Your task to perform on an android device: Open display settings Image 0: 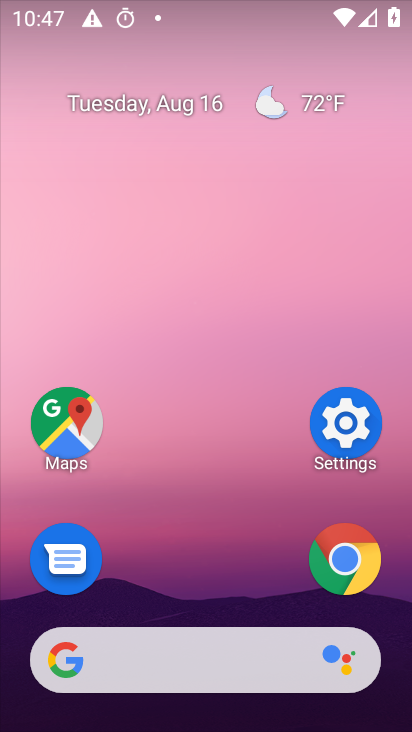
Step 0: click (355, 421)
Your task to perform on an android device: Open display settings Image 1: 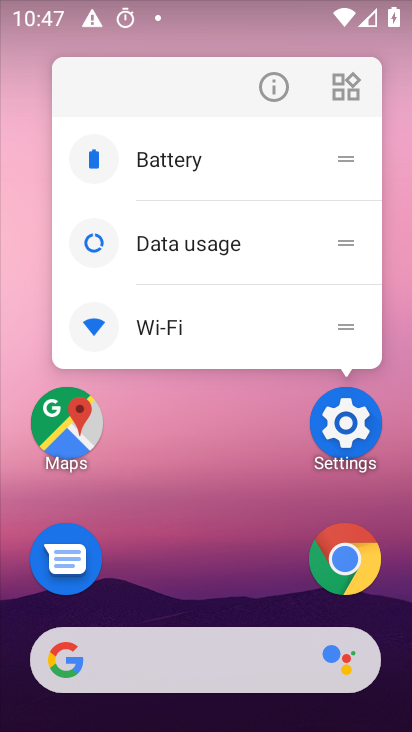
Step 1: click (348, 421)
Your task to perform on an android device: Open display settings Image 2: 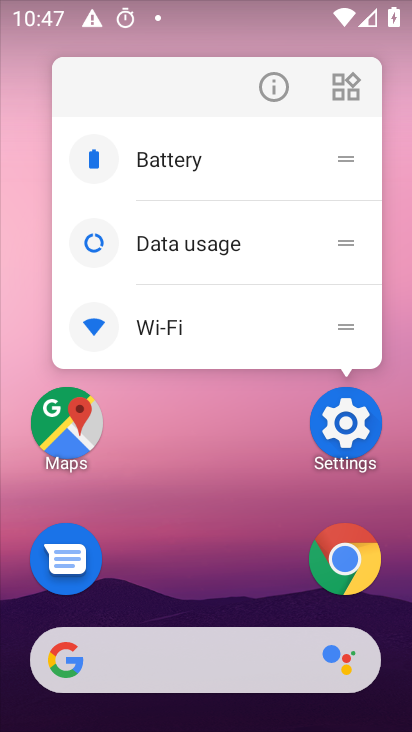
Step 2: click (345, 414)
Your task to perform on an android device: Open display settings Image 3: 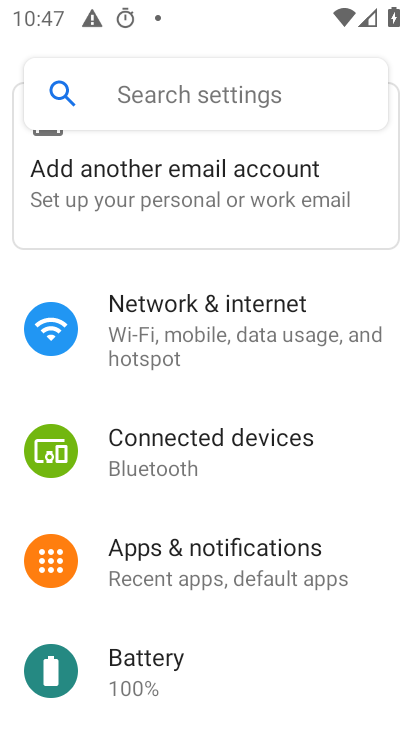
Step 3: drag from (237, 634) to (290, 233)
Your task to perform on an android device: Open display settings Image 4: 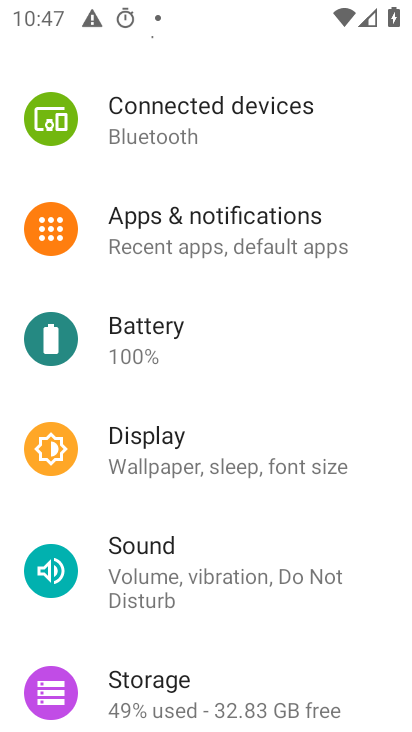
Step 4: click (178, 447)
Your task to perform on an android device: Open display settings Image 5: 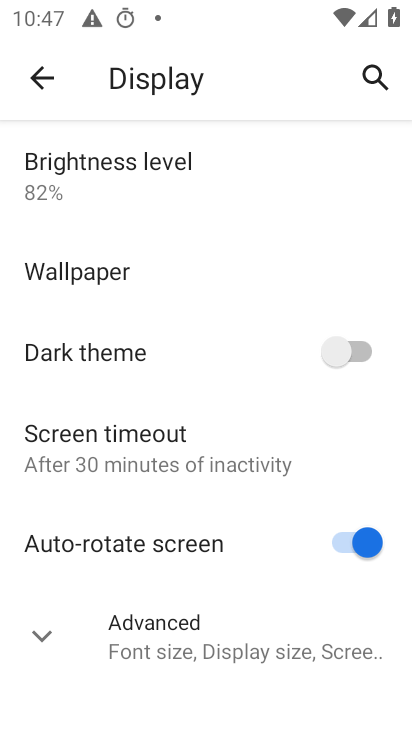
Step 5: task complete